Your task to perform on an android device: open app "Pinterest" (install if not already installed) Image 0: 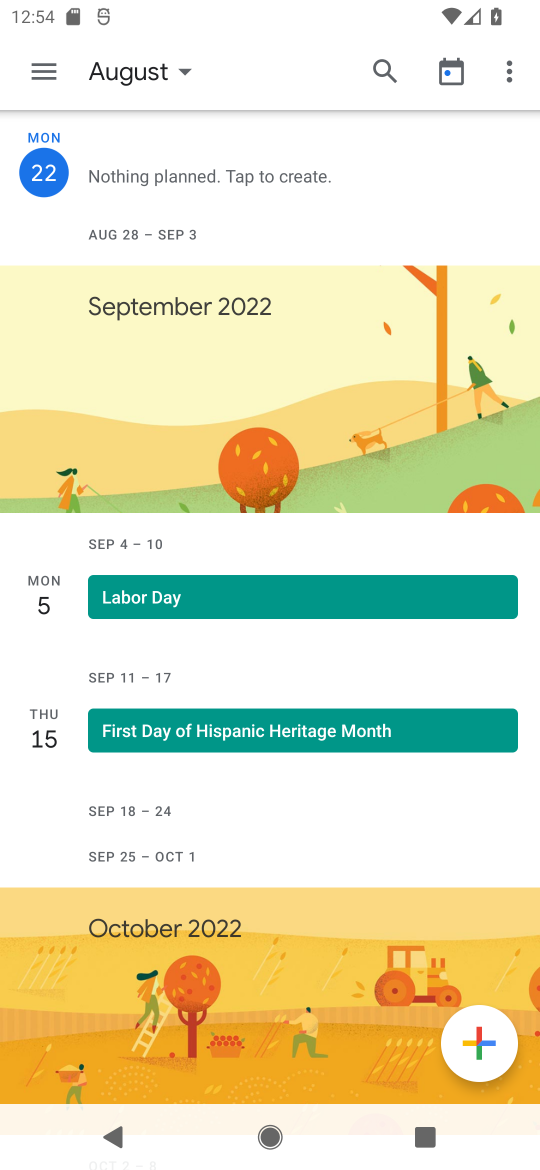
Step 0: press home button
Your task to perform on an android device: open app "Pinterest" (install if not already installed) Image 1: 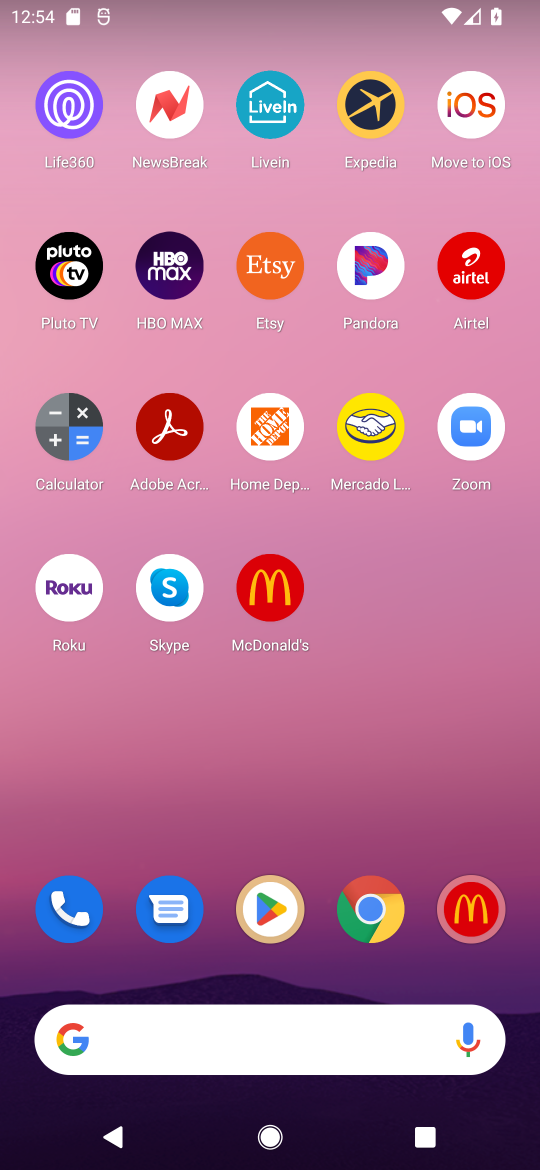
Step 1: click (275, 909)
Your task to perform on an android device: open app "Pinterest" (install if not already installed) Image 2: 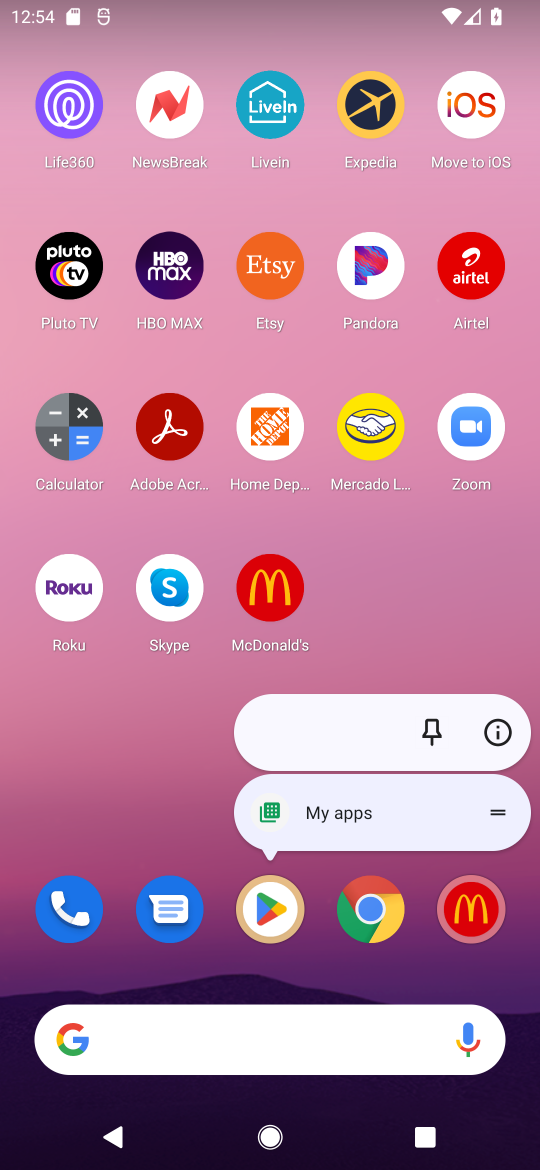
Step 2: click (273, 911)
Your task to perform on an android device: open app "Pinterest" (install if not already installed) Image 3: 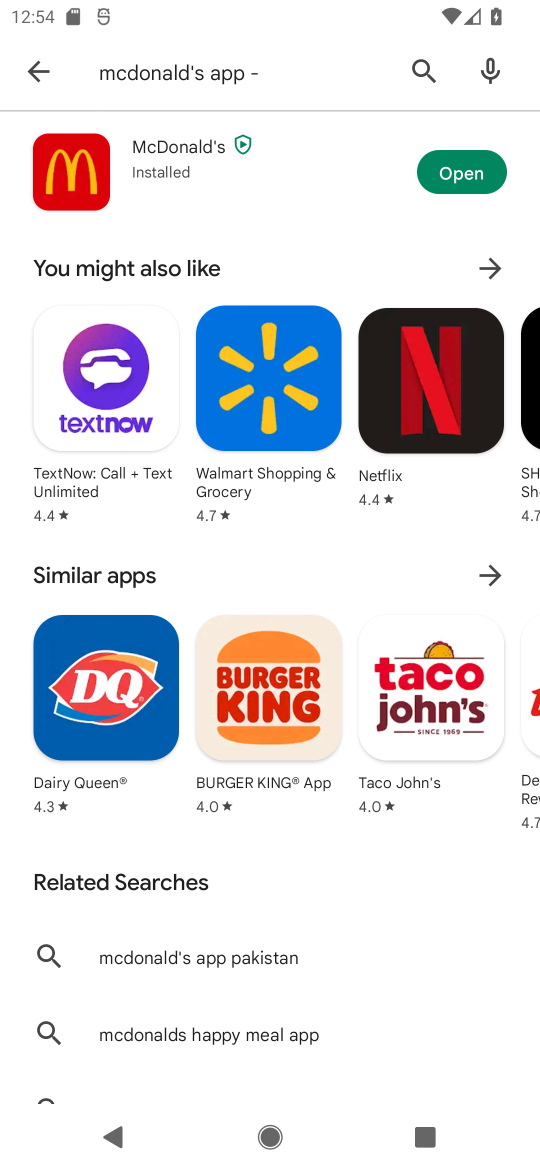
Step 3: click (423, 63)
Your task to perform on an android device: open app "Pinterest" (install if not already installed) Image 4: 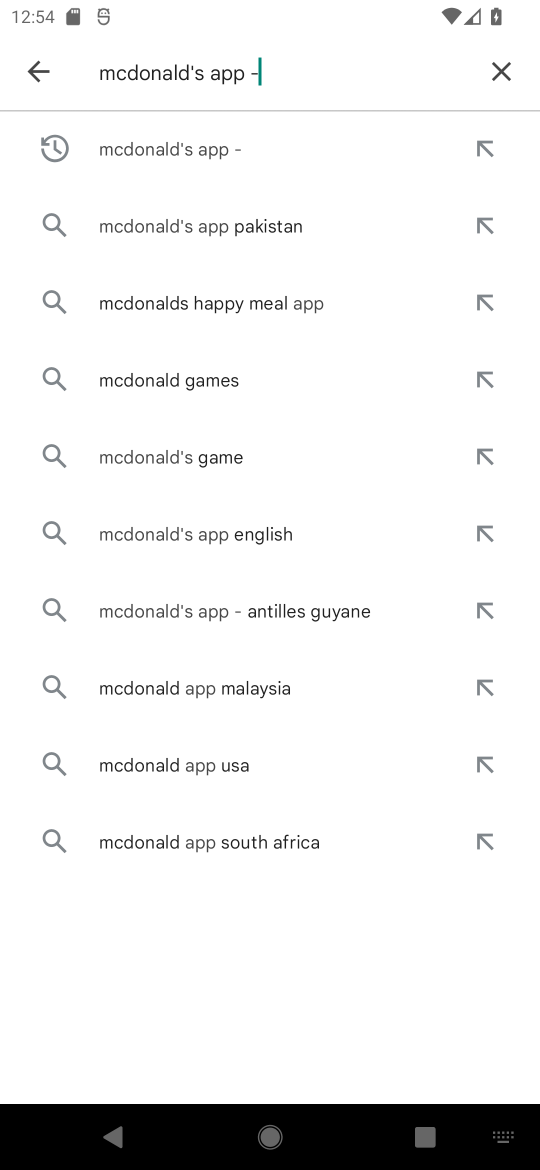
Step 4: click (505, 66)
Your task to perform on an android device: open app "Pinterest" (install if not already installed) Image 5: 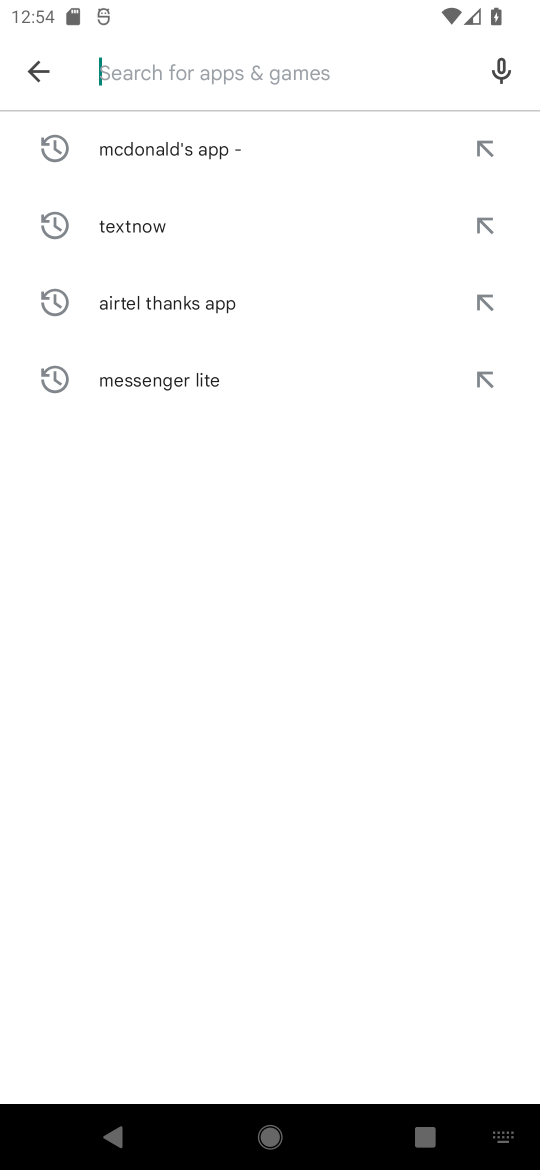
Step 5: type "pinterest"
Your task to perform on an android device: open app "Pinterest" (install if not already installed) Image 6: 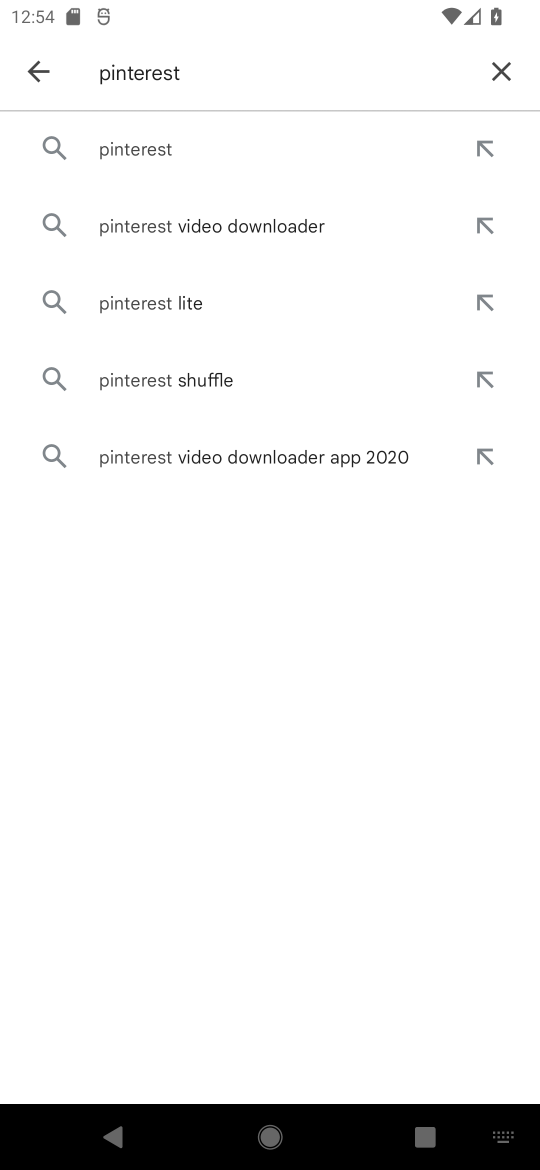
Step 6: click (143, 148)
Your task to perform on an android device: open app "Pinterest" (install if not already installed) Image 7: 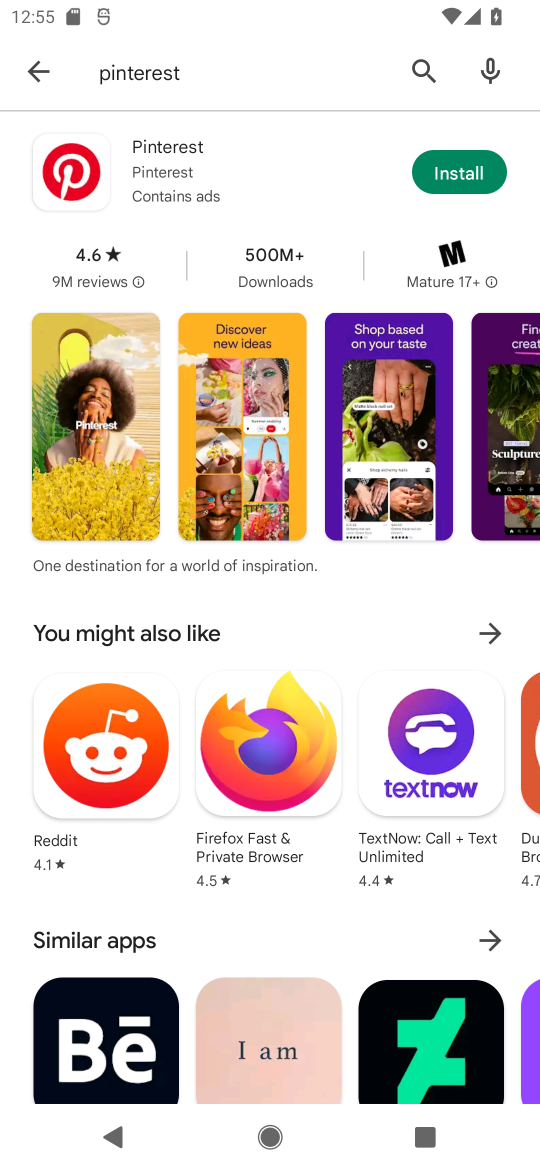
Step 7: click (442, 165)
Your task to perform on an android device: open app "Pinterest" (install if not already installed) Image 8: 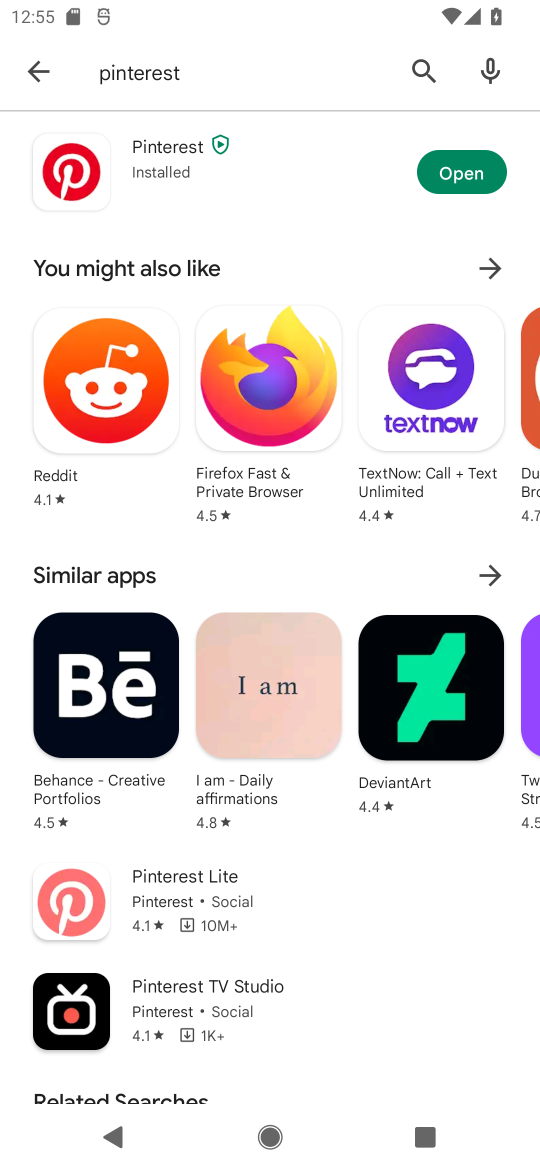
Step 8: click (475, 176)
Your task to perform on an android device: open app "Pinterest" (install if not already installed) Image 9: 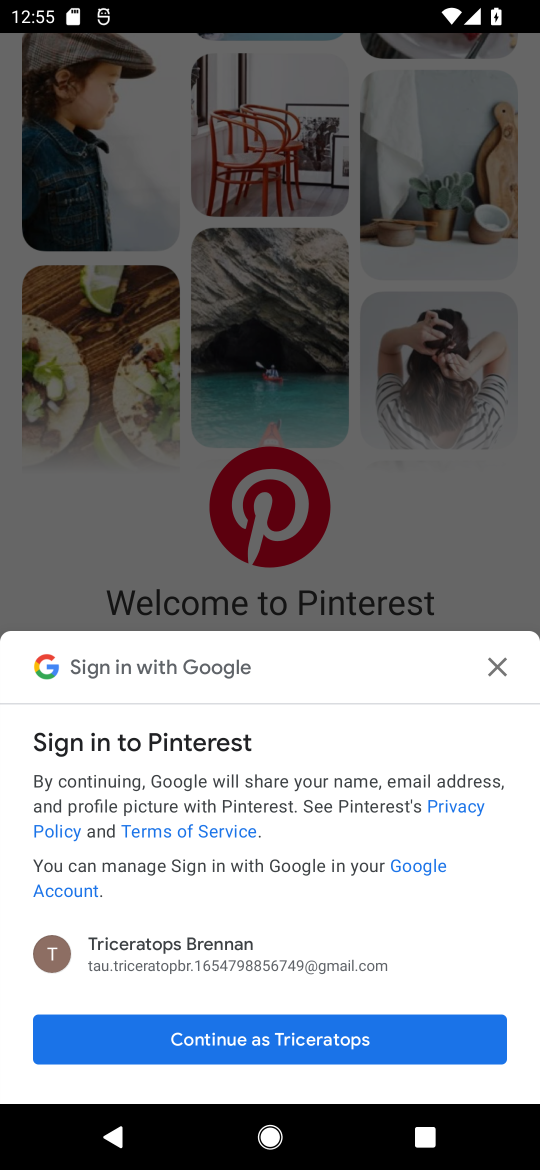
Step 9: task complete